Your task to perform on an android device: see sites visited before in the chrome app Image 0: 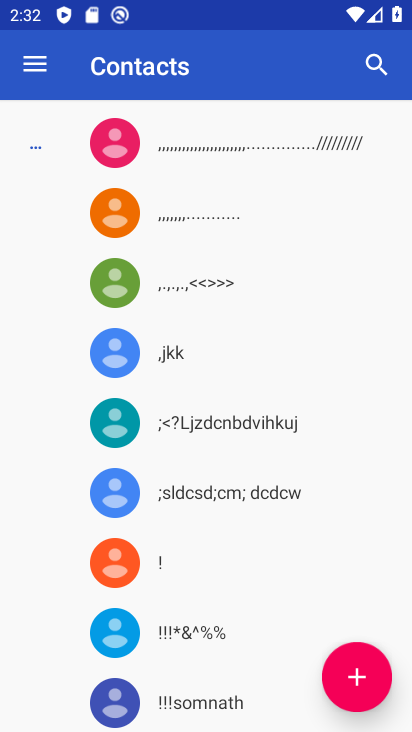
Step 0: press home button
Your task to perform on an android device: see sites visited before in the chrome app Image 1: 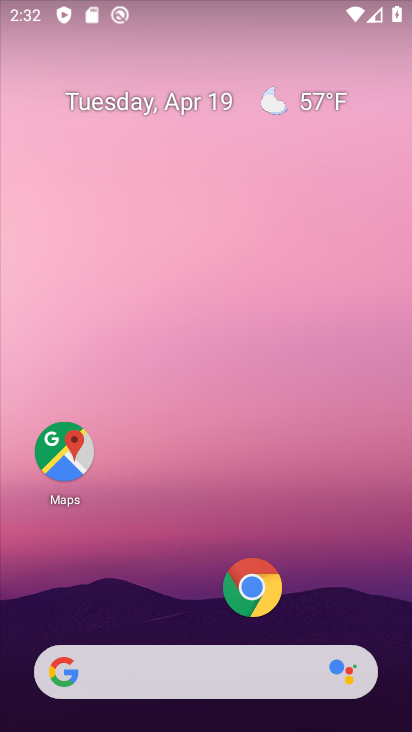
Step 1: click (252, 597)
Your task to perform on an android device: see sites visited before in the chrome app Image 2: 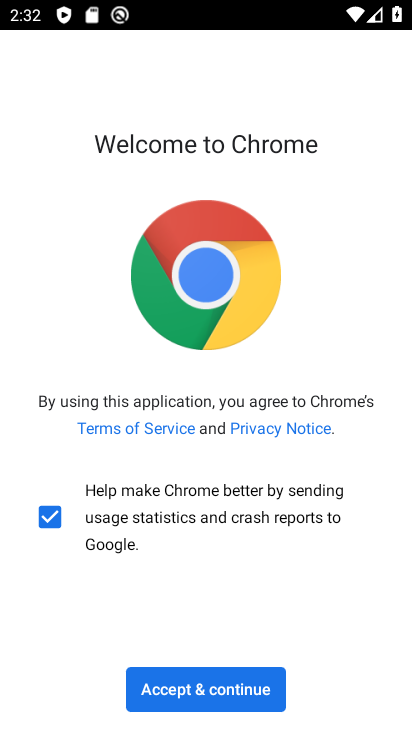
Step 2: click (212, 687)
Your task to perform on an android device: see sites visited before in the chrome app Image 3: 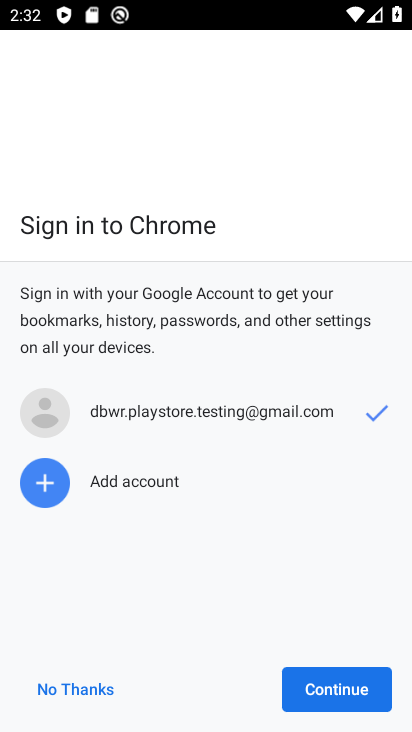
Step 3: click (319, 685)
Your task to perform on an android device: see sites visited before in the chrome app Image 4: 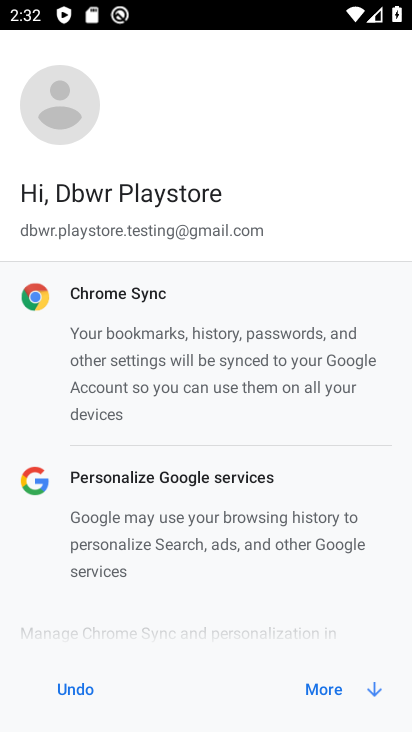
Step 4: click (323, 682)
Your task to perform on an android device: see sites visited before in the chrome app Image 5: 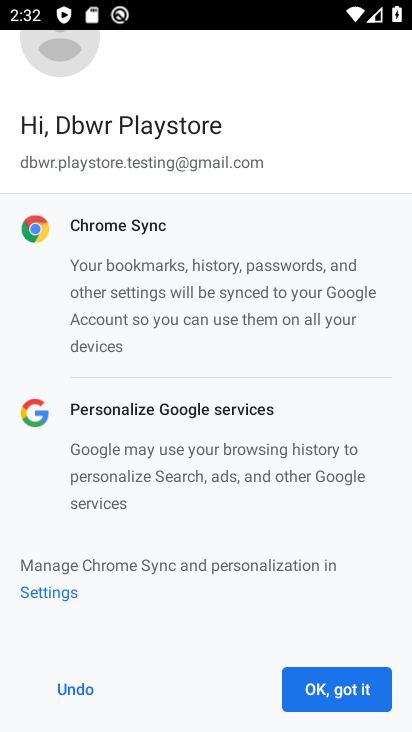
Step 5: click (323, 682)
Your task to perform on an android device: see sites visited before in the chrome app Image 6: 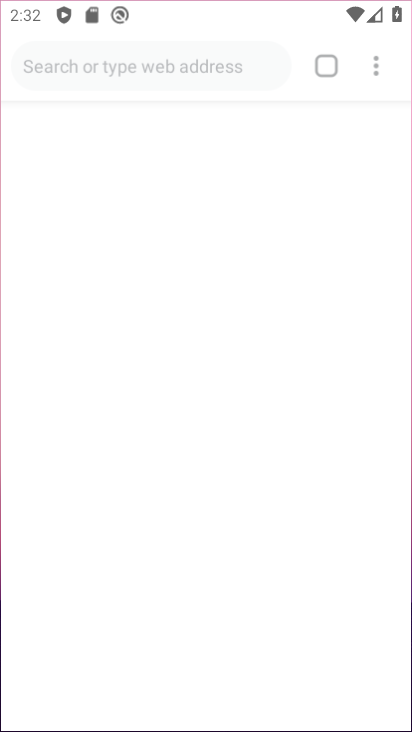
Step 6: click (343, 681)
Your task to perform on an android device: see sites visited before in the chrome app Image 7: 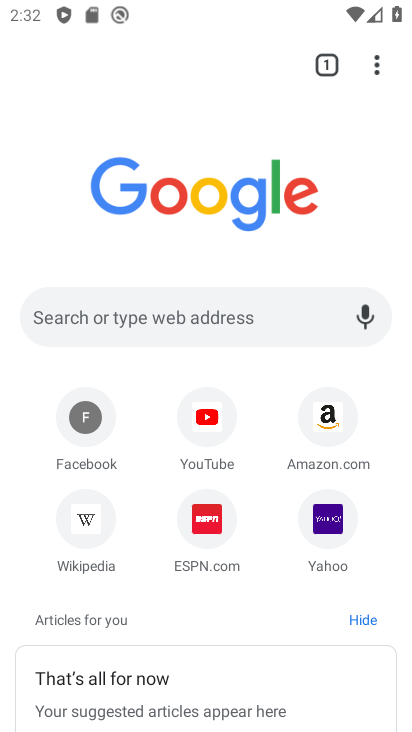
Step 7: click (383, 68)
Your task to perform on an android device: see sites visited before in the chrome app Image 8: 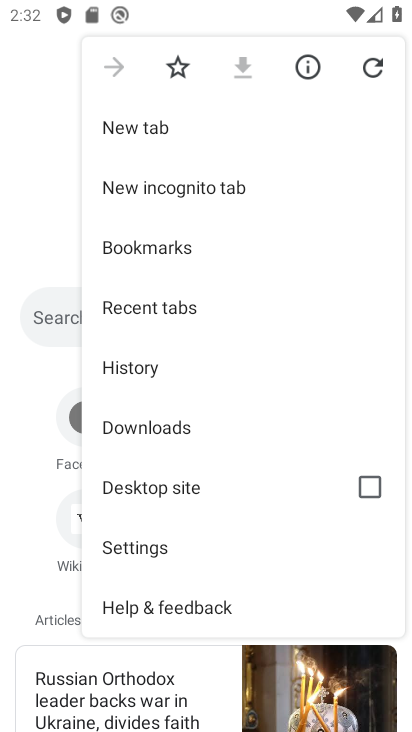
Step 8: click (157, 383)
Your task to perform on an android device: see sites visited before in the chrome app Image 9: 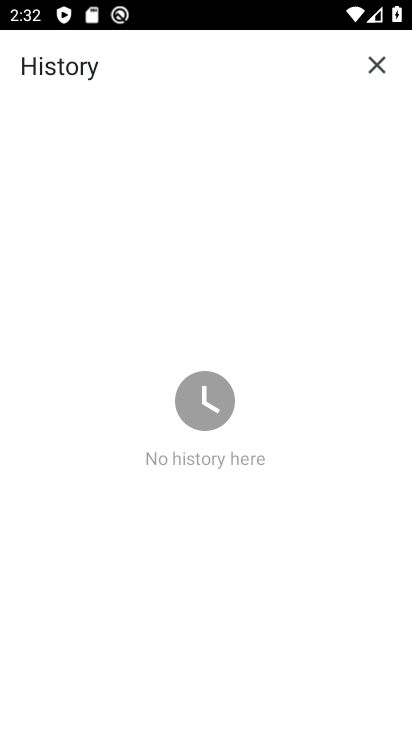
Step 9: task complete